Your task to perform on an android device: clear history in the chrome app Image 0: 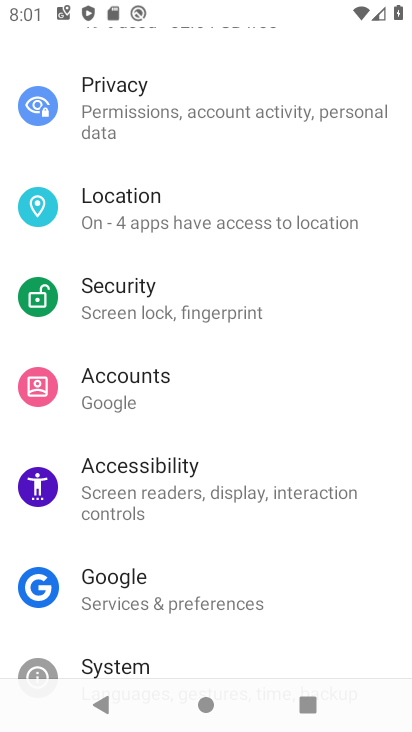
Step 0: press home button
Your task to perform on an android device: clear history in the chrome app Image 1: 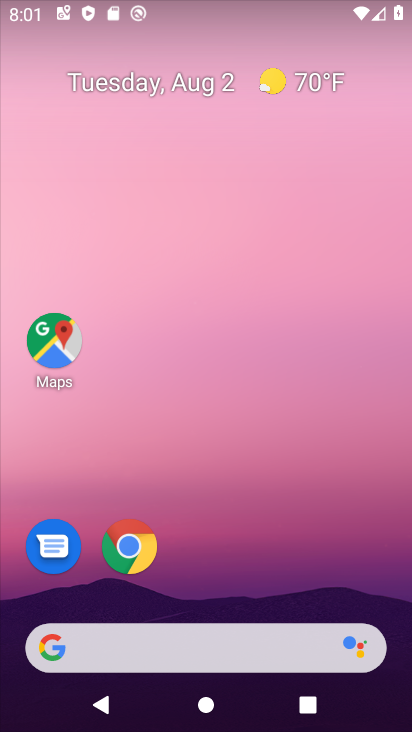
Step 1: click (140, 557)
Your task to perform on an android device: clear history in the chrome app Image 2: 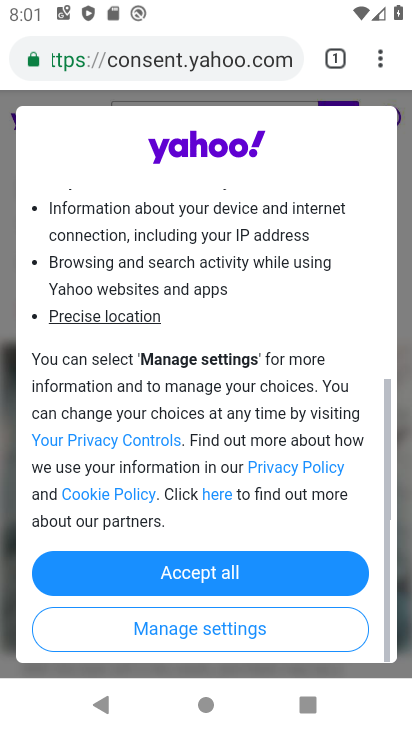
Step 2: click (387, 55)
Your task to perform on an android device: clear history in the chrome app Image 3: 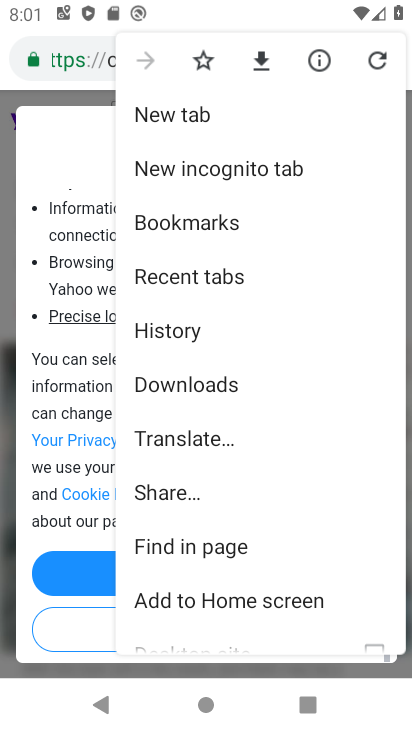
Step 3: drag from (211, 568) to (245, 280)
Your task to perform on an android device: clear history in the chrome app Image 4: 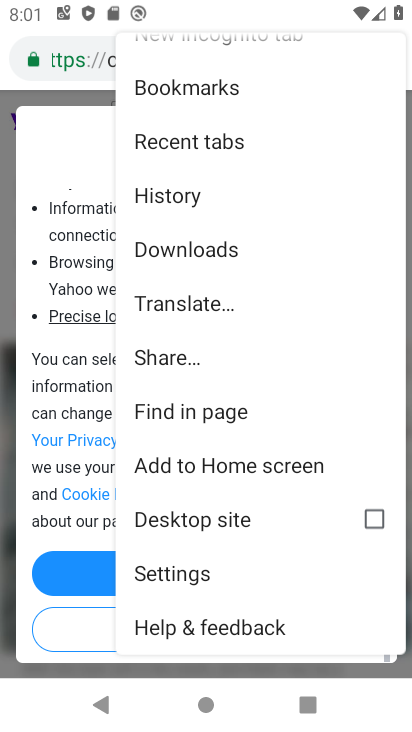
Step 4: click (185, 199)
Your task to perform on an android device: clear history in the chrome app Image 5: 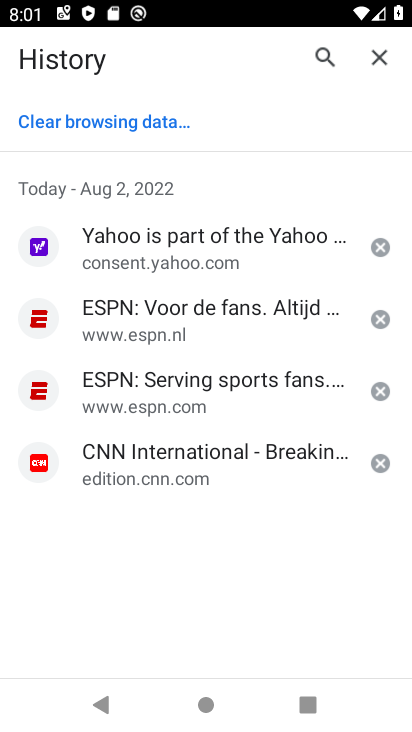
Step 5: click (130, 122)
Your task to perform on an android device: clear history in the chrome app Image 6: 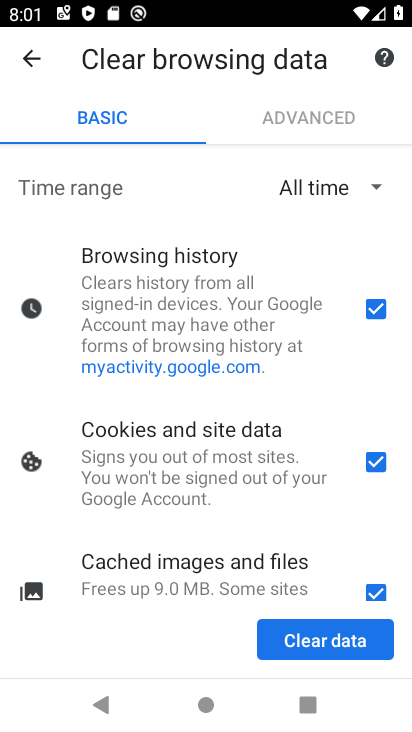
Step 6: drag from (255, 554) to (288, 332)
Your task to perform on an android device: clear history in the chrome app Image 7: 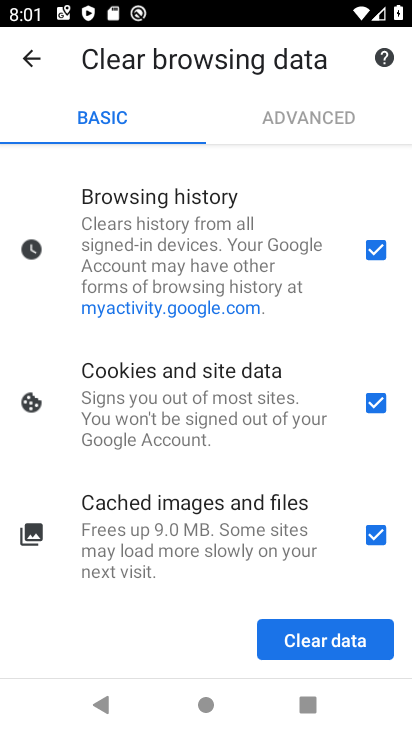
Step 7: click (357, 639)
Your task to perform on an android device: clear history in the chrome app Image 8: 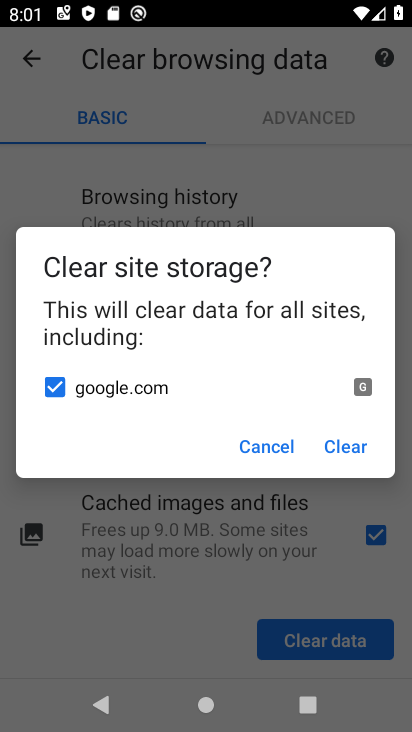
Step 8: click (347, 446)
Your task to perform on an android device: clear history in the chrome app Image 9: 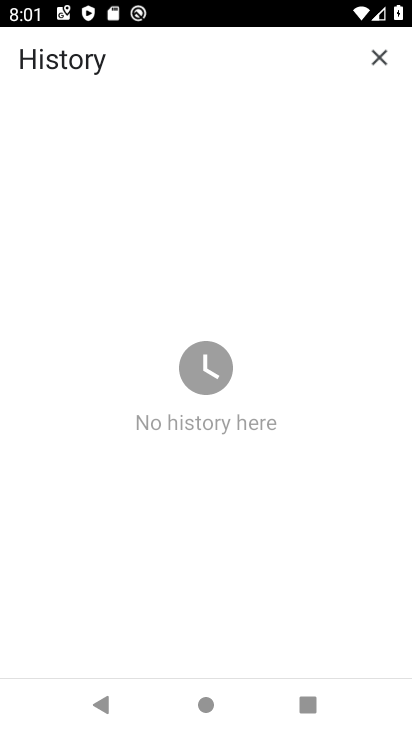
Step 9: task complete